Your task to perform on an android device: See recent photos Image 0: 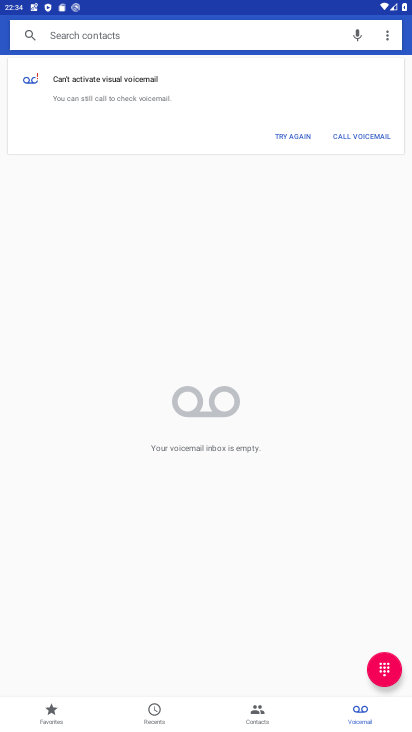
Step 0: press home button
Your task to perform on an android device: See recent photos Image 1: 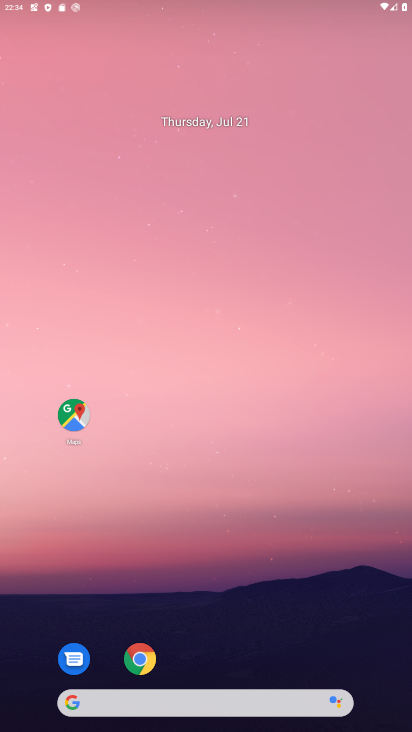
Step 1: drag from (319, 618) to (248, 6)
Your task to perform on an android device: See recent photos Image 2: 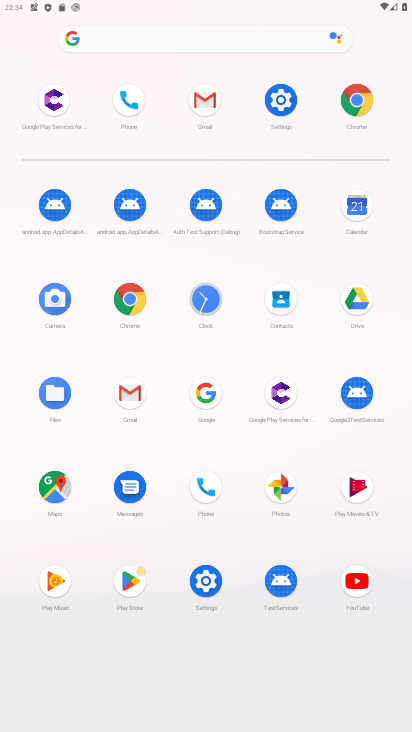
Step 2: click (290, 482)
Your task to perform on an android device: See recent photos Image 3: 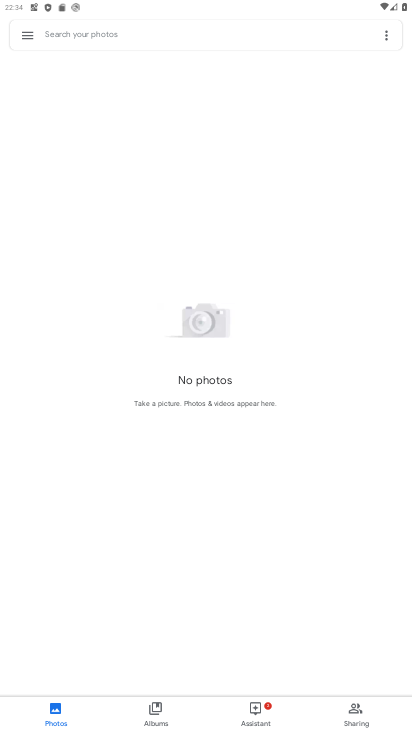
Step 3: task complete